Your task to perform on an android device: Go to privacy settings Image 0: 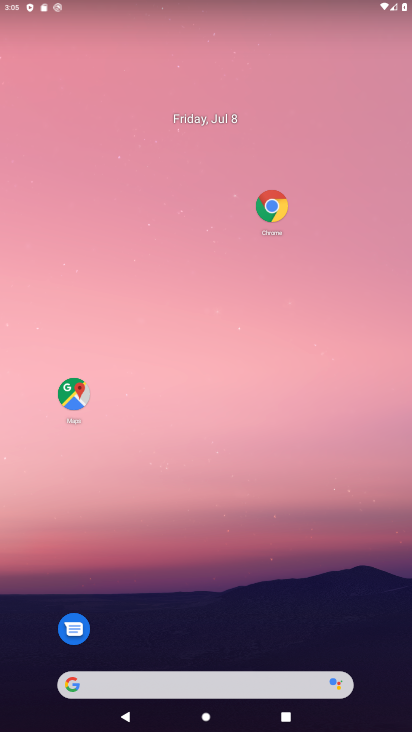
Step 0: click (265, 260)
Your task to perform on an android device: Go to privacy settings Image 1: 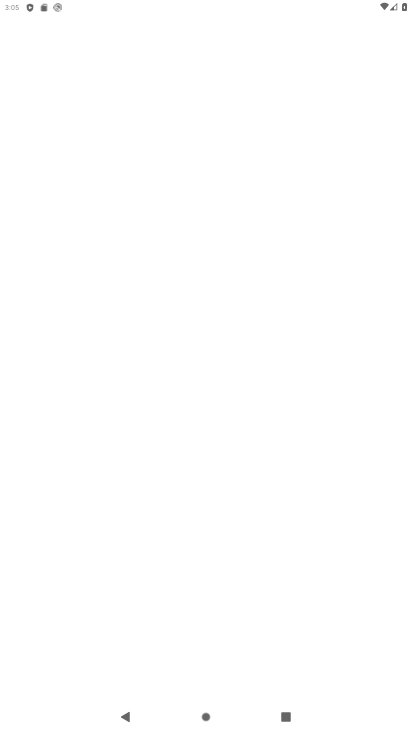
Step 1: drag from (167, 648) to (392, 153)
Your task to perform on an android device: Go to privacy settings Image 2: 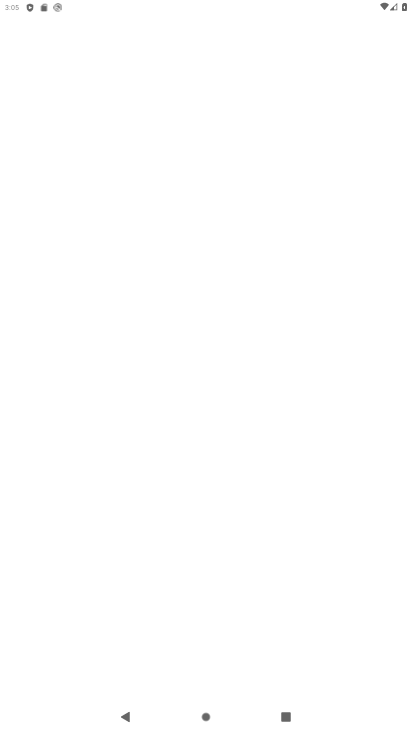
Step 2: press home button
Your task to perform on an android device: Go to privacy settings Image 3: 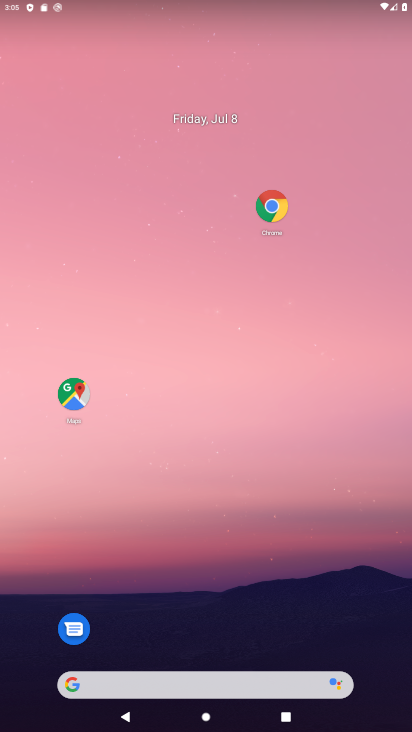
Step 3: drag from (179, 650) to (296, 129)
Your task to perform on an android device: Go to privacy settings Image 4: 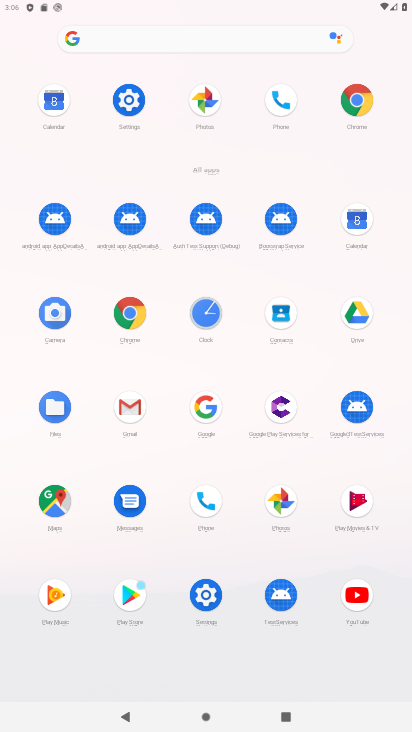
Step 4: click (128, 93)
Your task to perform on an android device: Go to privacy settings Image 5: 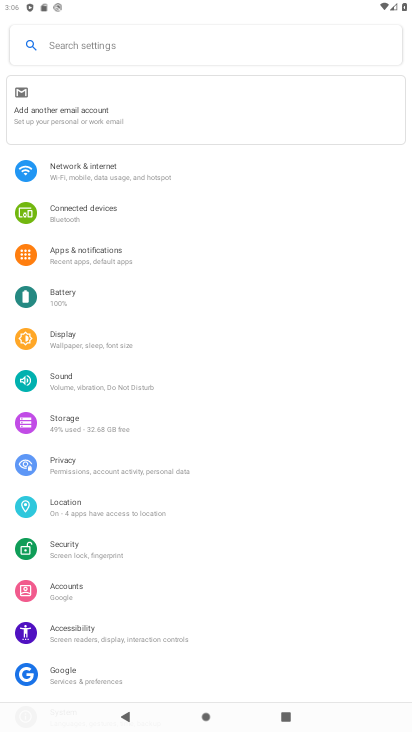
Step 5: click (82, 471)
Your task to perform on an android device: Go to privacy settings Image 6: 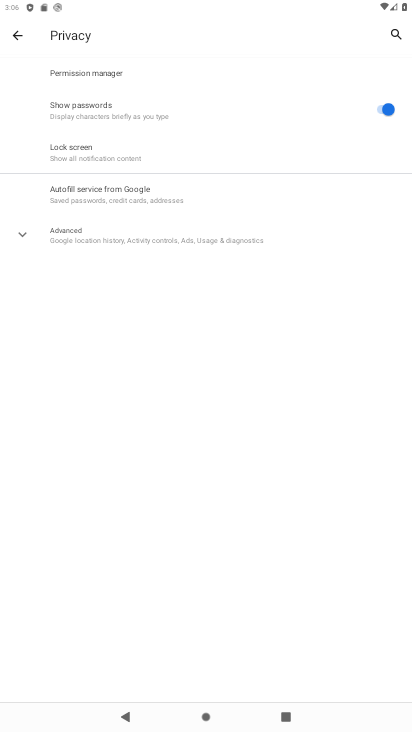
Step 6: task complete